Your task to perform on an android device: Set the phone to "Do not disturb". Image 0: 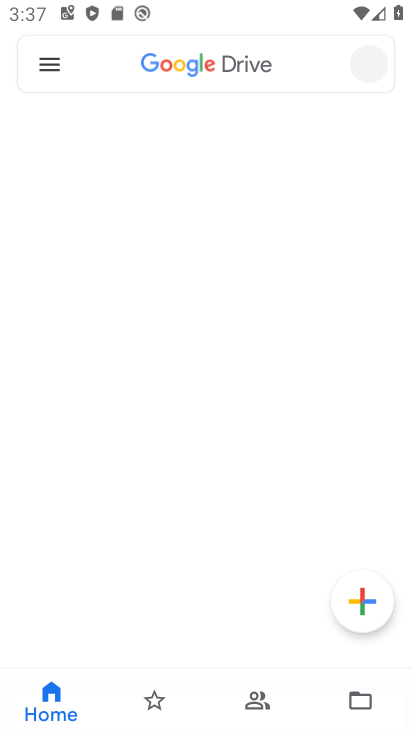
Step 0: click (273, 566)
Your task to perform on an android device: Set the phone to "Do not disturb". Image 1: 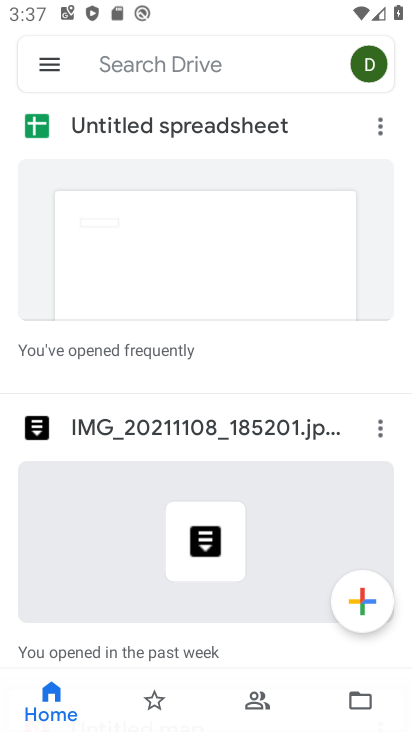
Step 1: press back button
Your task to perform on an android device: Set the phone to "Do not disturb". Image 2: 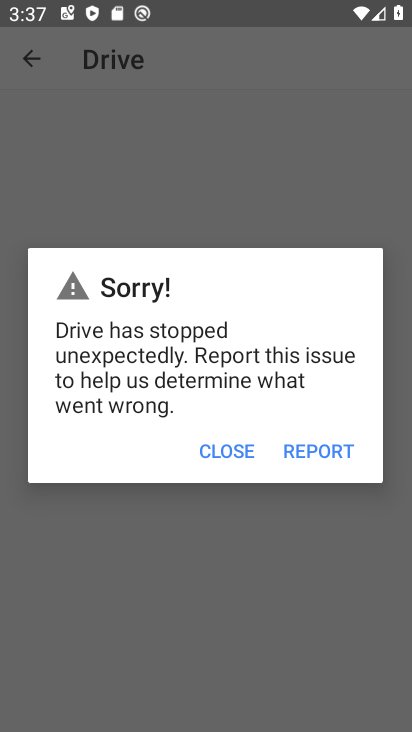
Step 2: press home button
Your task to perform on an android device: Set the phone to "Do not disturb". Image 3: 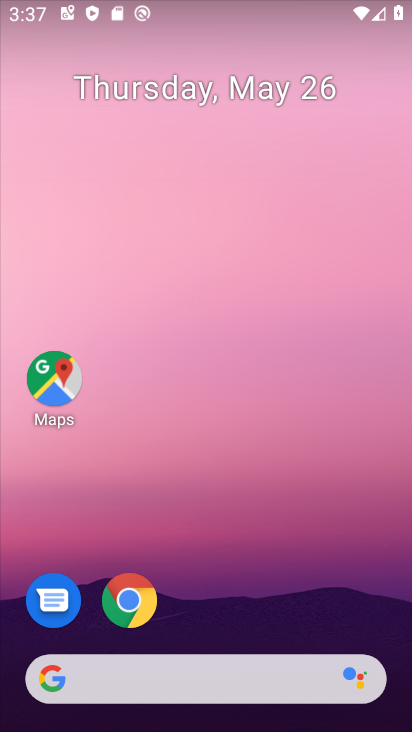
Step 3: drag from (265, 538) to (234, 61)
Your task to perform on an android device: Set the phone to "Do not disturb". Image 4: 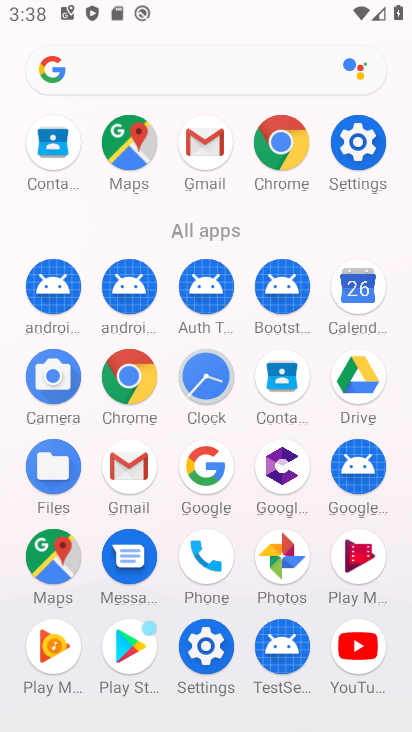
Step 4: drag from (3, 603) to (12, 284)
Your task to perform on an android device: Set the phone to "Do not disturb". Image 5: 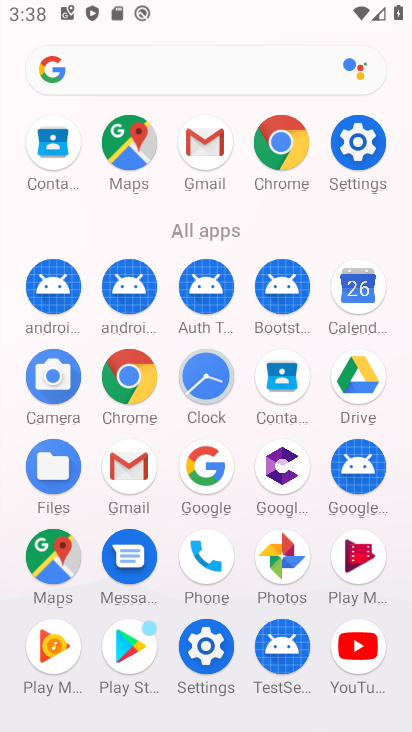
Step 5: drag from (21, 593) to (7, 277)
Your task to perform on an android device: Set the phone to "Do not disturb". Image 6: 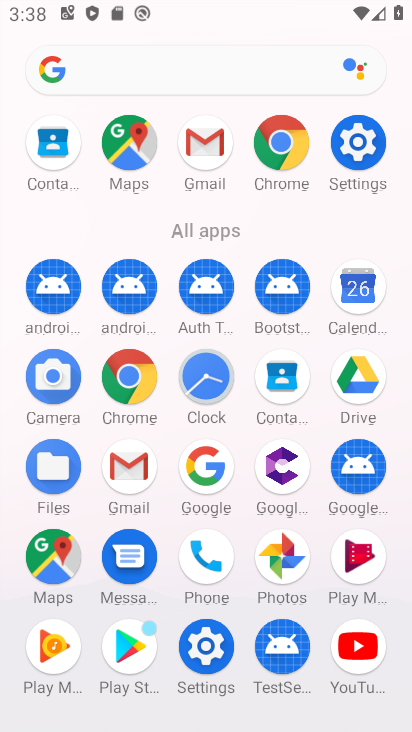
Step 6: click (199, 627)
Your task to perform on an android device: Set the phone to "Do not disturb". Image 7: 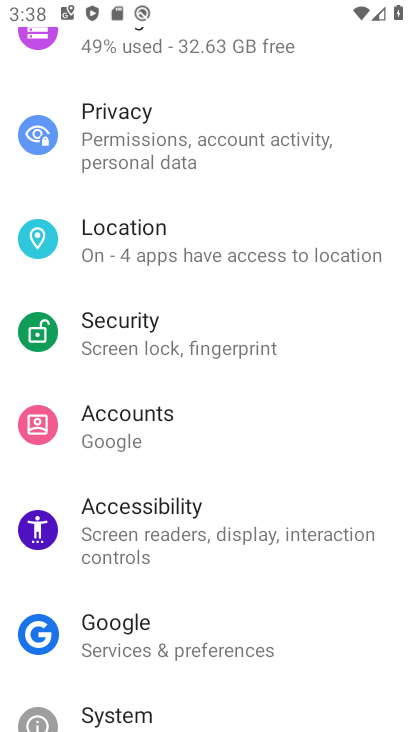
Step 7: drag from (297, 633) to (265, 135)
Your task to perform on an android device: Set the phone to "Do not disturb". Image 8: 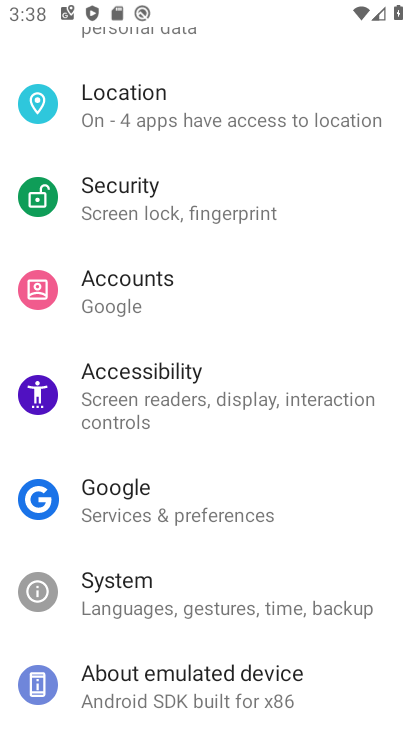
Step 8: drag from (217, 609) to (241, 175)
Your task to perform on an android device: Set the phone to "Do not disturb". Image 9: 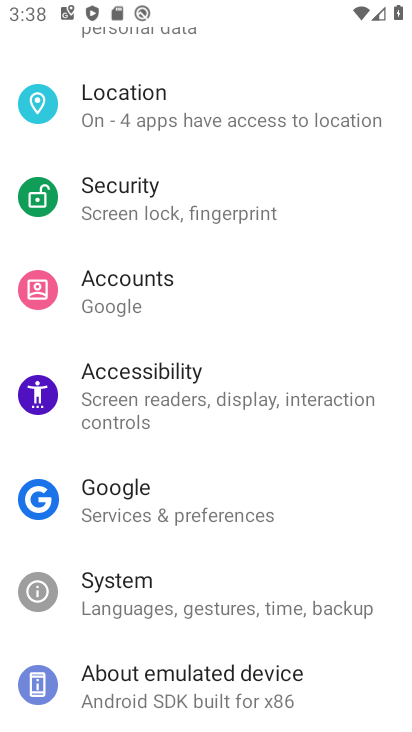
Step 9: drag from (254, 224) to (313, 670)
Your task to perform on an android device: Set the phone to "Do not disturb". Image 10: 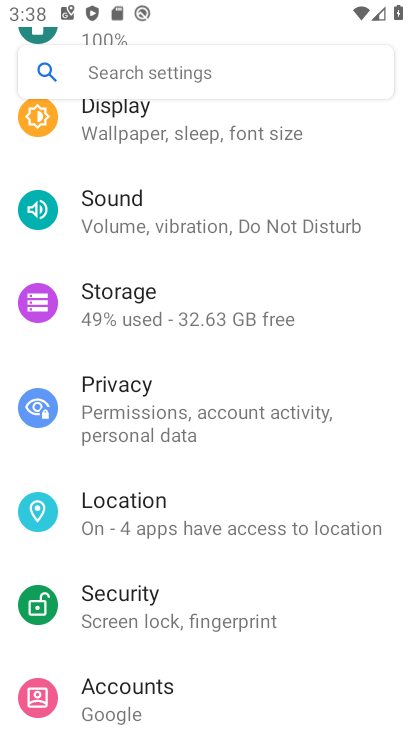
Step 10: drag from (251, 193) to (257, 690)
Your task to perform on an android device: Set the phone to "Do not disturb". Image 11: 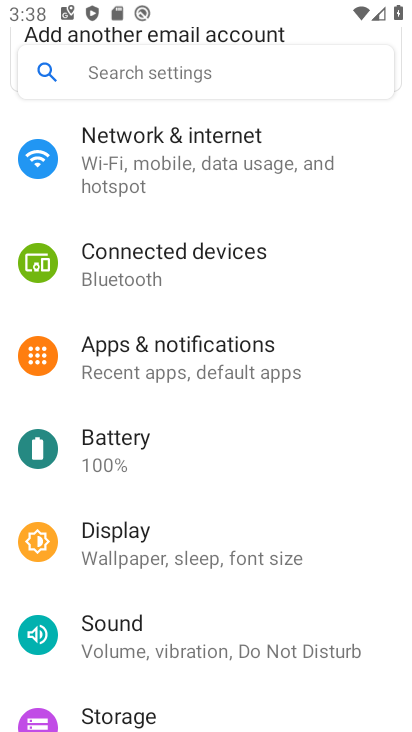
Step 11: drag from (252, 167) to (249, 648)
Your task to perform on an android device: Set the phone to "Do not disturb". Image 12: 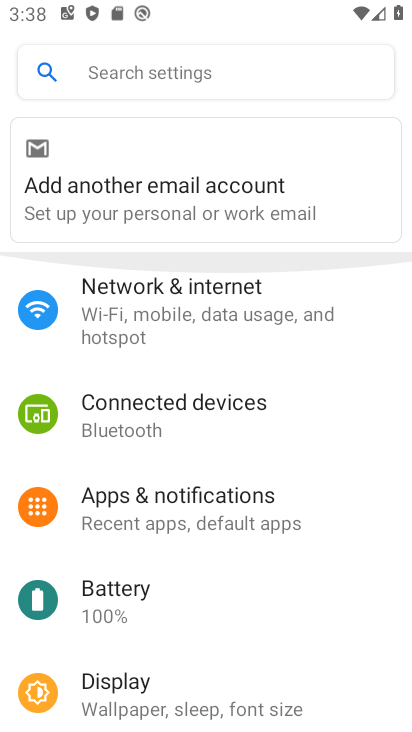
Step 12: drag from (246, 618) to (295, 191)
Your task to perform on an android device: Set the phone to "Do not disturb". Image 13: 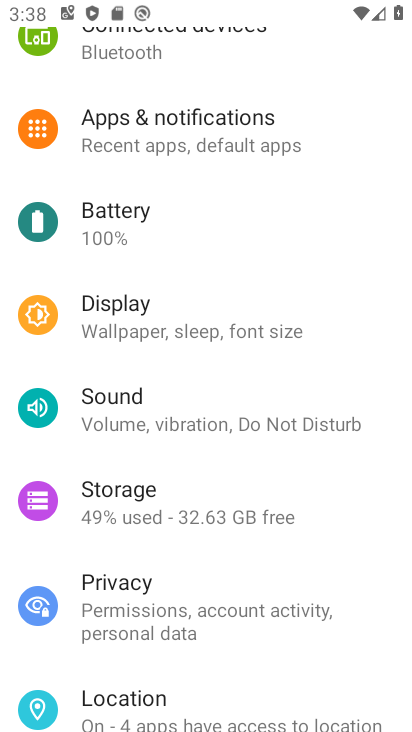
Step 13: drag from (266, 631) to (275, 137)
Your task to perform on an android device: Set the phone to "Do not disturb". Image 14: 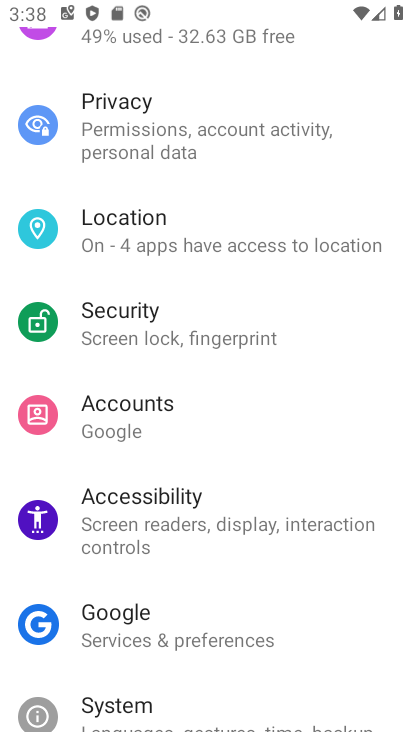
Step 14: drag from (237, 632) to (262, 195)
Your task to perform on an android device: Set the phone to "Do not disturb". Image 15: 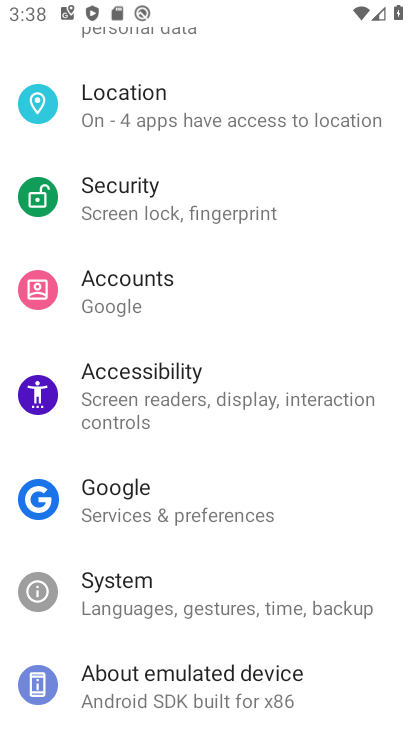
Step 15: drag from (220, 184) to (222, 635)
Your task to perform on an android device: Set the phone to "Do not disturb". Image 16: 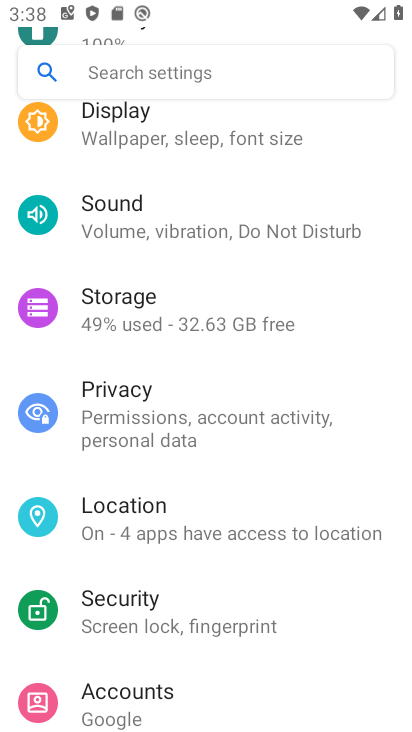
Step 16: click (204, 220)
Your task to perform on an android device: Set the phone to "Do not disturb". Image 17: 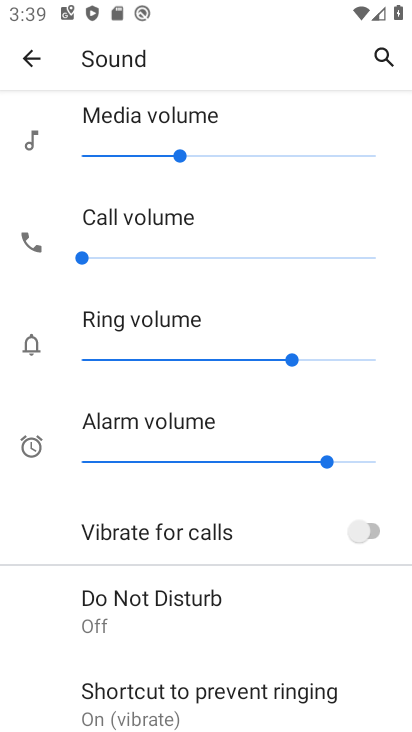
Step 17: drag from (263, 548) to (259, 146)
Your task to perform on an android device: Set the phone to "Do not disturb". Image 18: 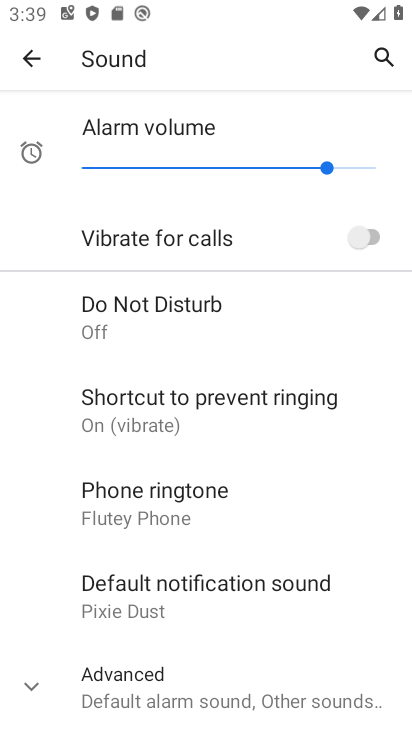
Step 18: drag from (210, 513) to (218, 138)
Your task to perform on an android device: Set the phone to "Do not disturb". Image 19: 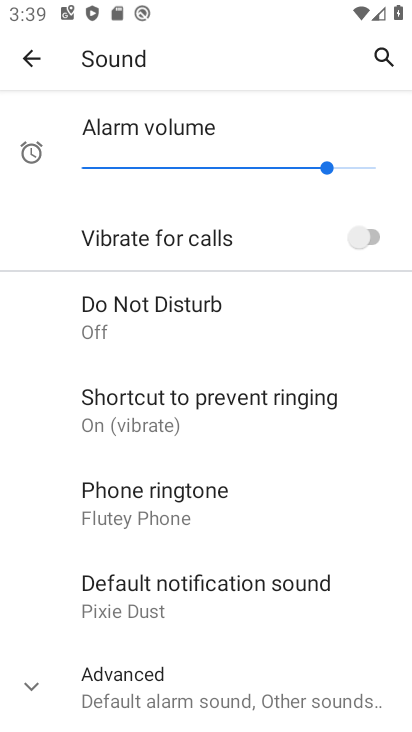
Step 19: click (168, 309)
Your task to perform on an android device: Set the phone to "Do not disturb". Image 20: 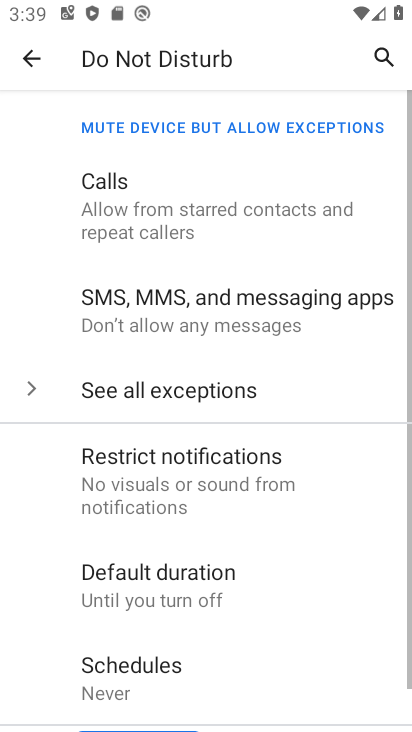
Step 20: drag from (293, 636) to (259, 160)
Your task to perform on an android device: Set the phone to "Do not disturb". Image 21: 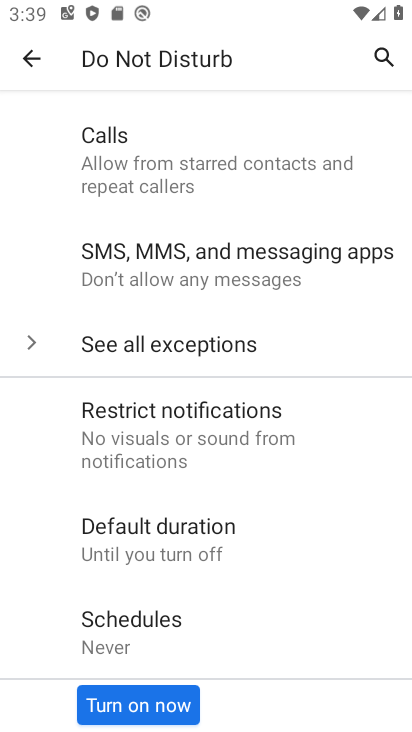
Step 21: click (172, 691)
Your task to perform on an android device: Set the phone to "Do not disturb". Image 22: 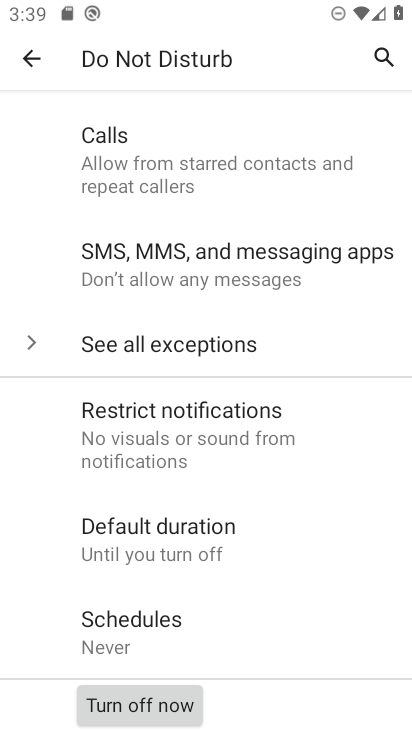
Step 22: task complete